Your task to perform on an android device: Open battery settings Image 0: 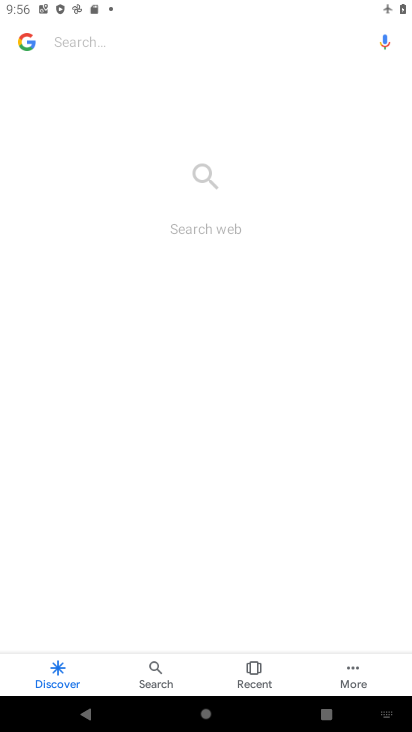
Step 0: press back button
Your task to perform on an android device: Open battery settings Image 1: 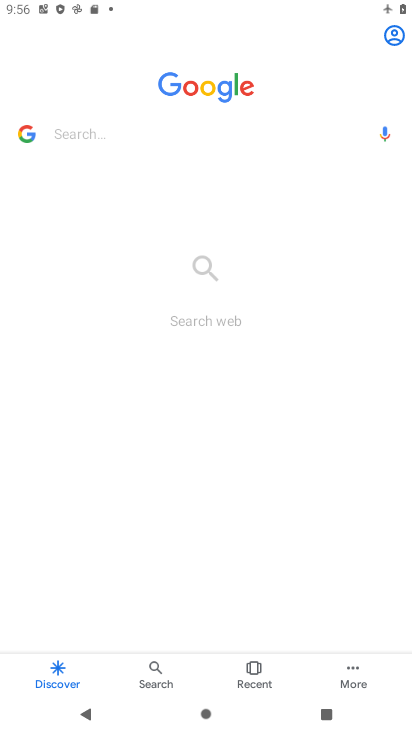
Step 1: press back button
Your task to perform on an android device: Open battery settings Image 2: 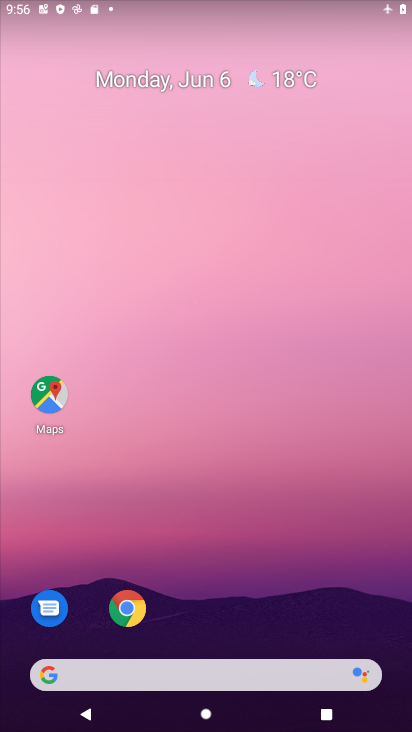
Step 2: drag from (283, 614) to (163, 67)
Your task to perform on an android device: Open battery settings Image 3: 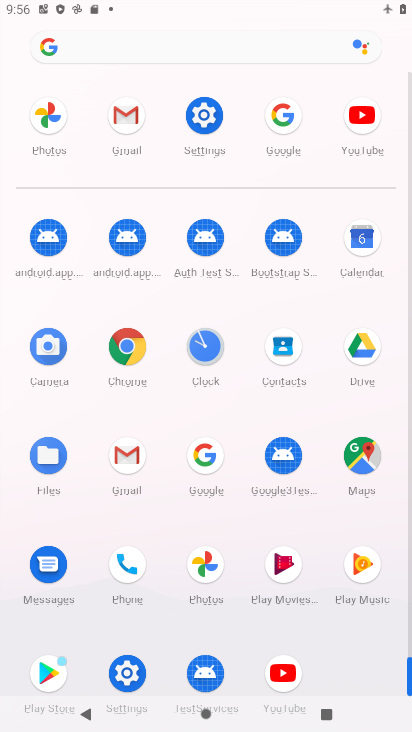
Step 3: click (202, 114)
Your task to perform on an android device: Open battery settings Image 4: 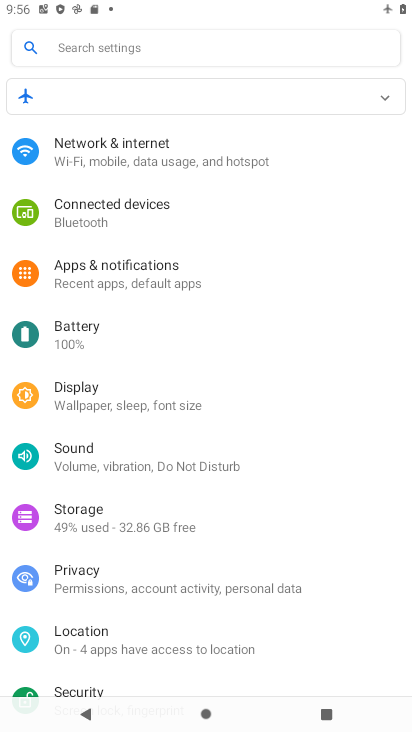
Step 4: click (156, 322)
Your task to perform on an android device: Open battery settings Image 5: 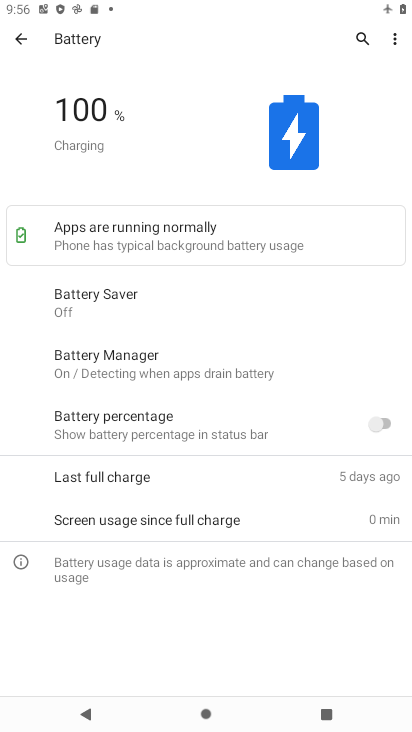
Step 5: task complete